Your task to perform on an android device: Toggle the flashlight Image 0: 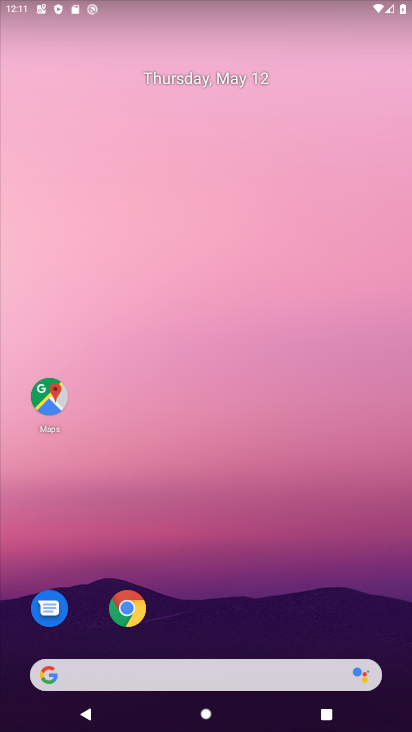
Step 0: drag from (235, 32) to (330, 639)
Your task to perform on an android device: Toggle the flashlight Image 1: 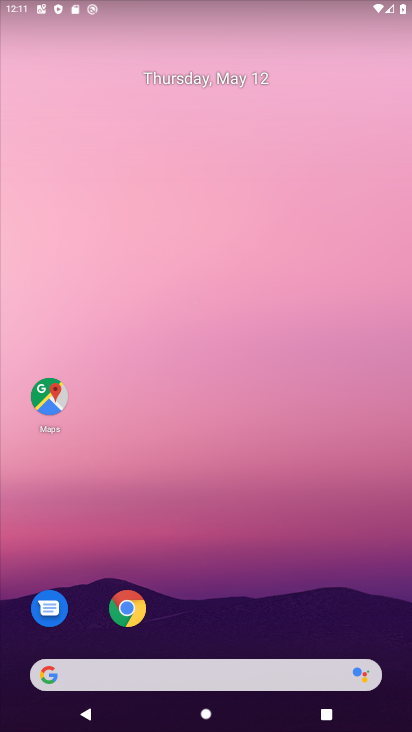
Step 1: task complete